Your task to perform on an android device: open app "YouTube Kids" (install if not already installed) and enter user name: "atmospheric@gmail.com" and password: "raze" Image 0: 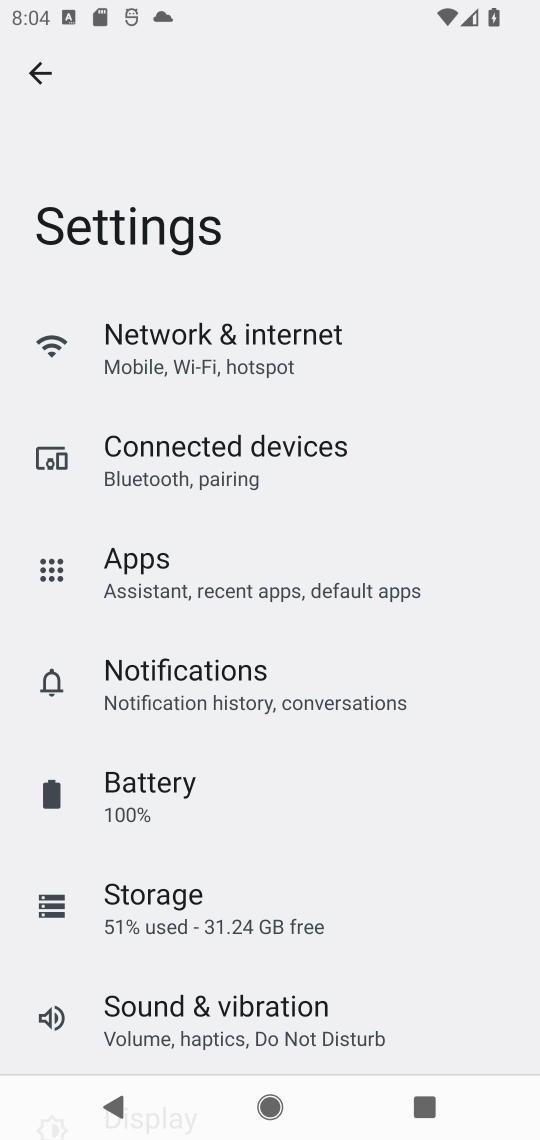
Step 0: press home button
Your task to perform on an android device: open app "YouTube Kids" (install if not already installed) and enter user name: "atmospheric@gmail.com" and password: "raze" Image 1: 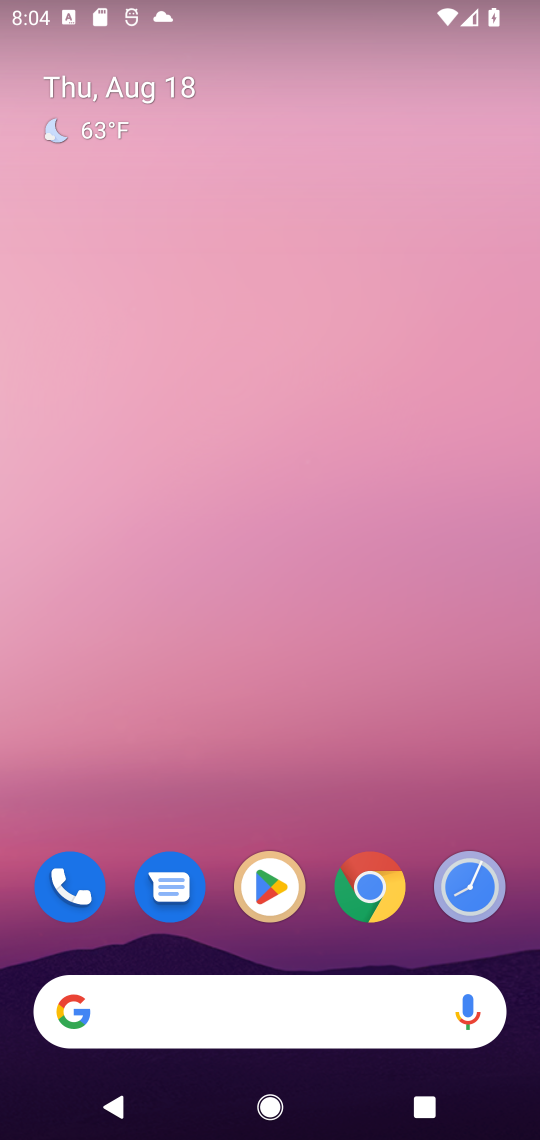
Step 1: drag from (307, 691) to (307, 19)
Your task to perform on an android device: open app "YouTube Kids" (install if not already installed) and enter user name: "atmospheric@gmail.com" and password: "raze" Image 2: 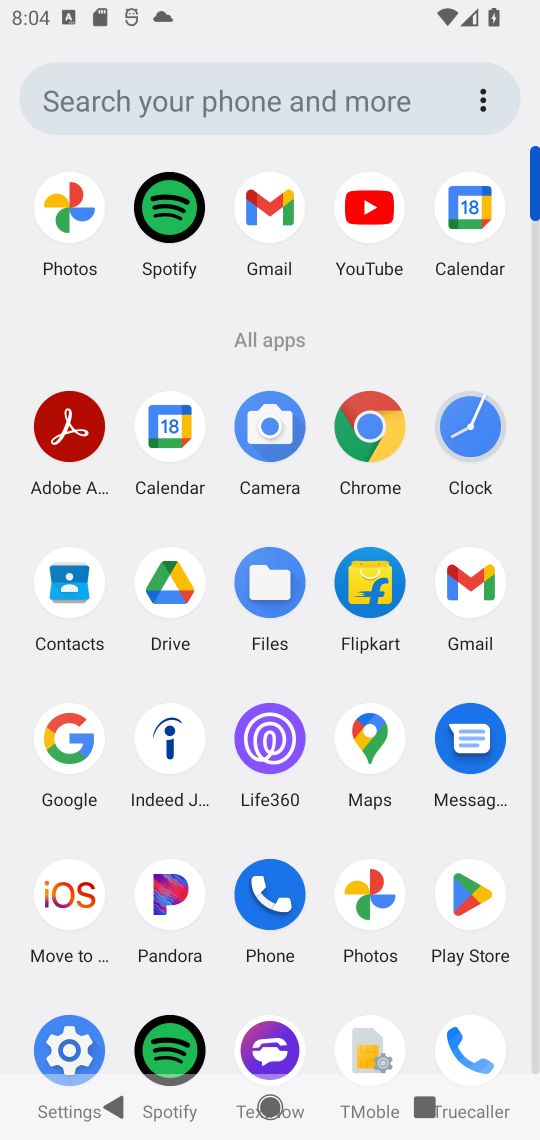
Step 2: click (471, 896)
Your task to perform on an android device: open app "YouTube Kids" (install if not already installed) and enter user name: "atmospheric@gmail.com" and password: "raze" Image 3: 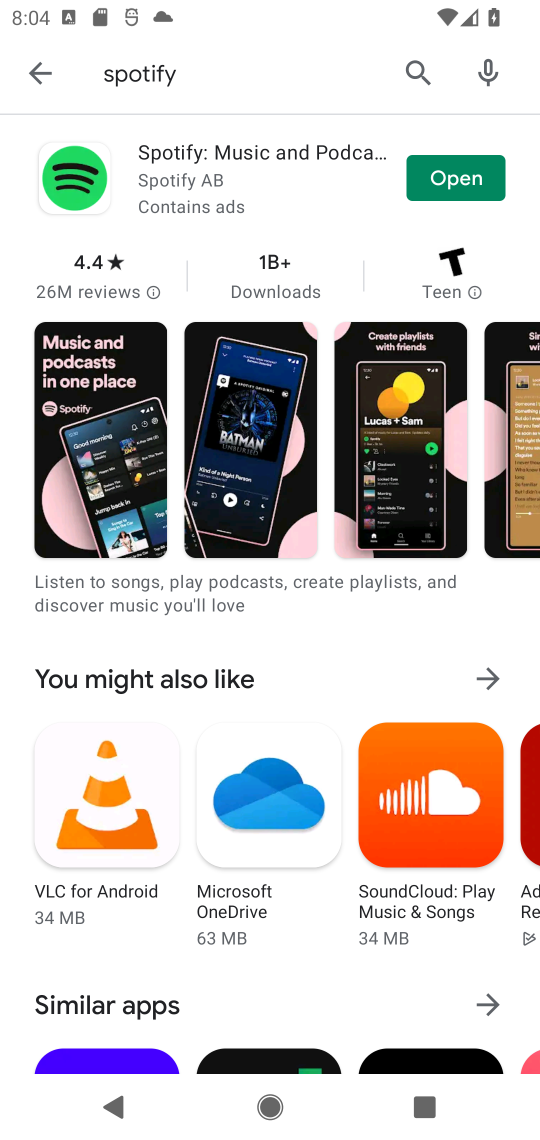
Step 3: click (413, 66)
Your task to perform on an android device: open app "YouTube Kids" (install if not already installed) and enter user name: "atmospheric@gmail.com" and password: "raze" Image 4: 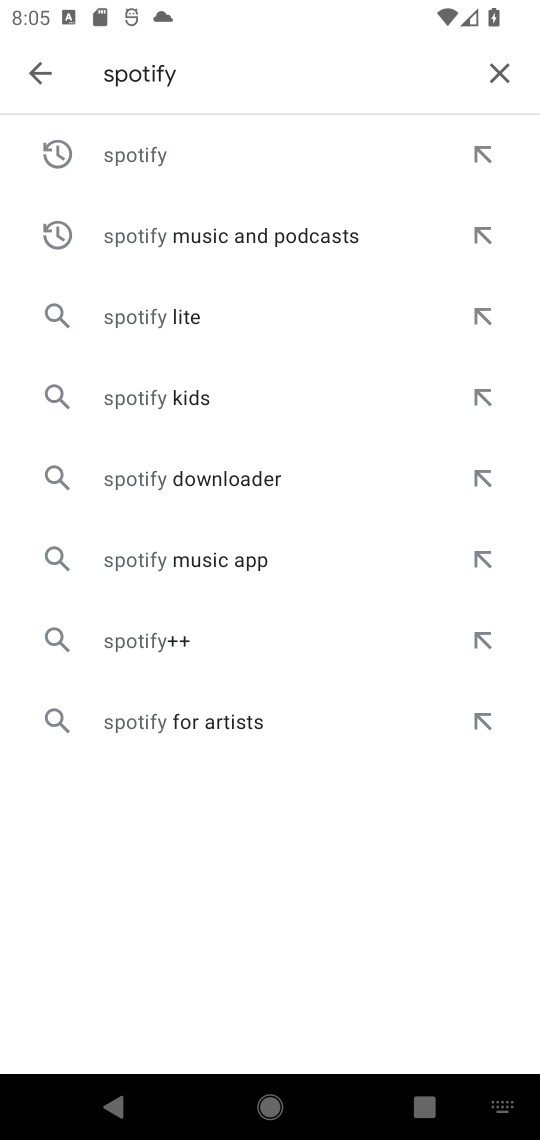
Step 4: click (494, 64)
Your task to perform on an android device: open app "YouTube Kids" (install if not already installed) and enter user name: "atmospheric@gmail.com" and password: "raze" Image 5: 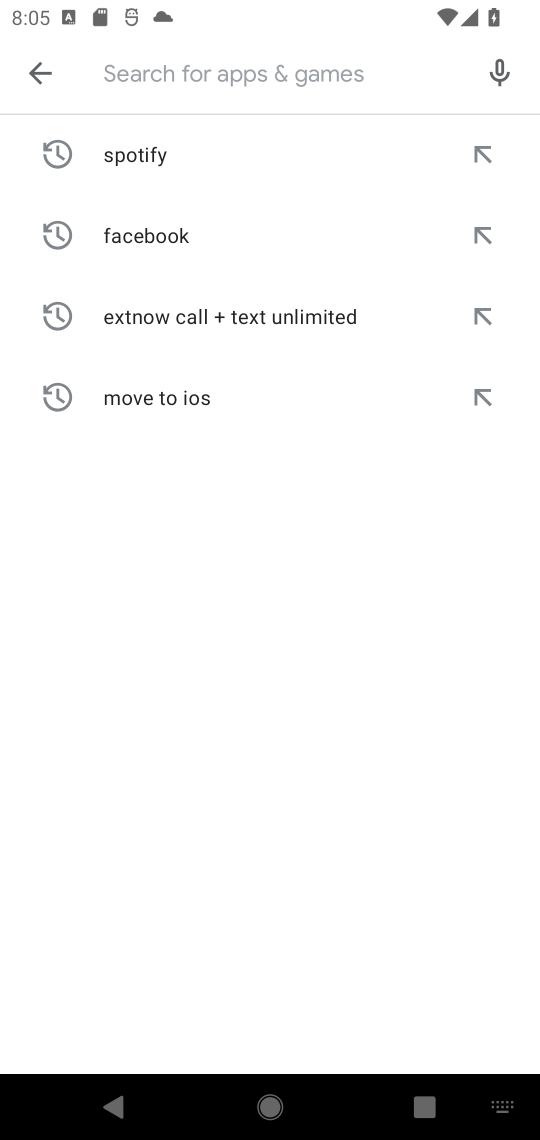
Step 5: type "youTube Kids"
Your task to perform on an android device: open app "YouTube Kids" (install if not already installed) and enter user name: "atmospheric@gmail.com" and password: "raze" Image 6: 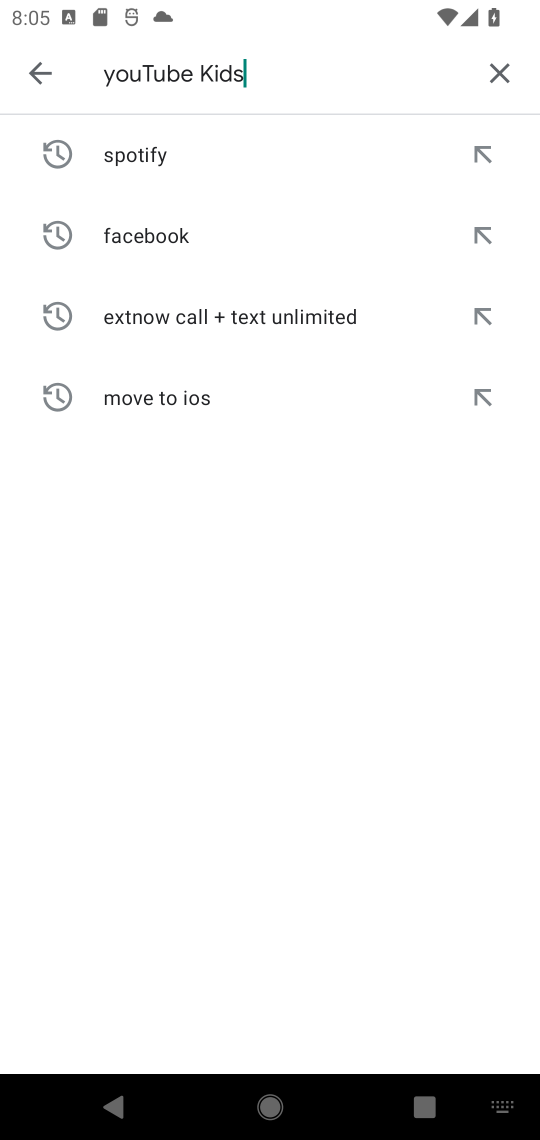
Step 6: type ""
Your task to perform on an android device: open app "YouTube Kids" (install if not already installed) and enter user name: "atmospheric@gmail.com" and password: "raze" Image 7: 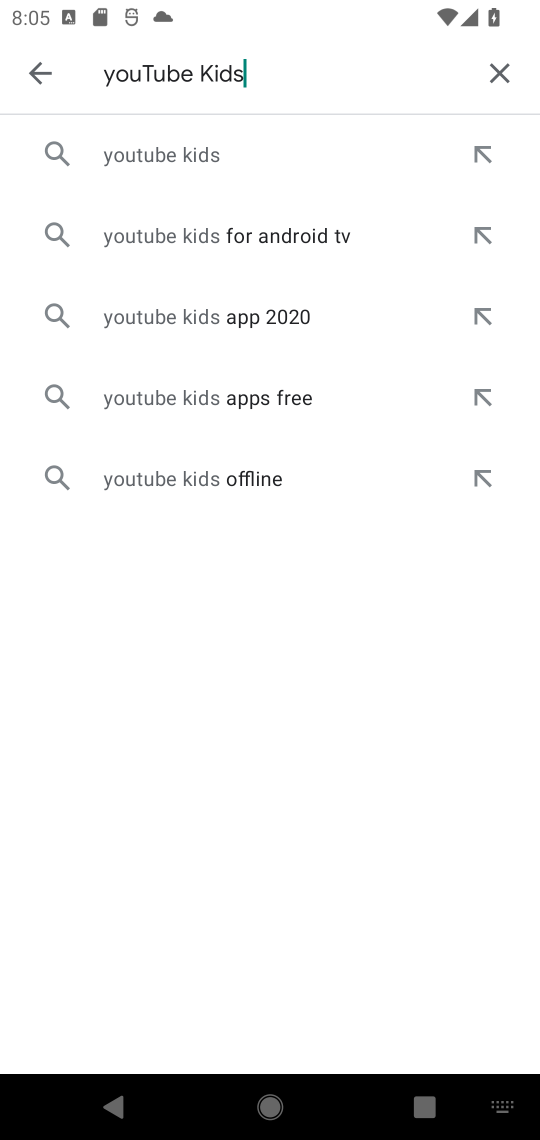
Step 7: click (194, 152)
Your task to perform on an android device: open app "YouTube Kids" (install if not already installed) and enter user name: "atmospheric@gmail.com" and password: "raze" Image 8: 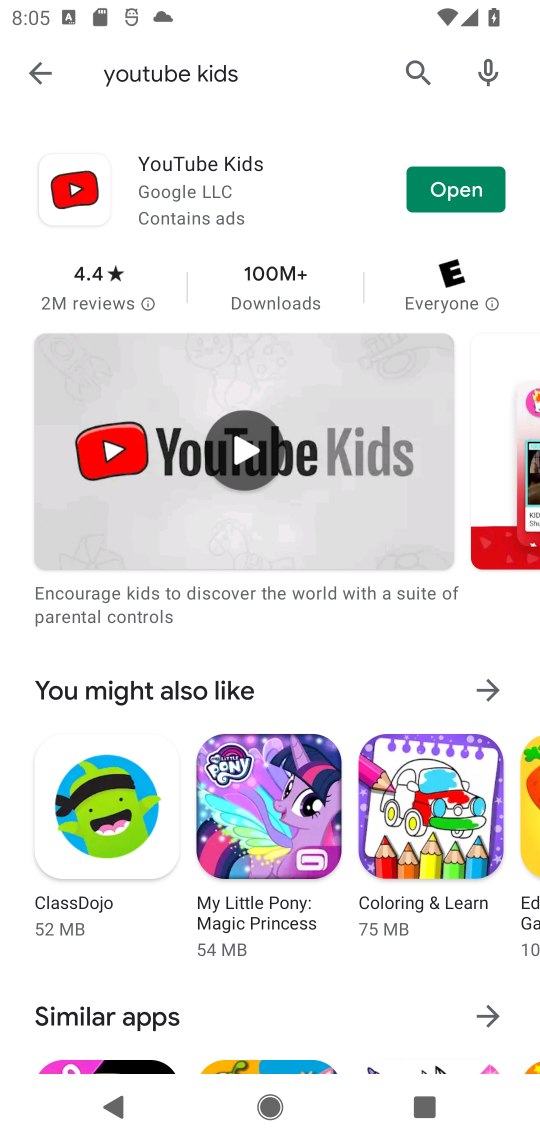
Step 8: click (460, 186)
Your task to perform on an android device: open app "YouTube Kids" (install if not already installed) and enter user name: "atmospheric@gmail.com" and password: "raze" Image 9: 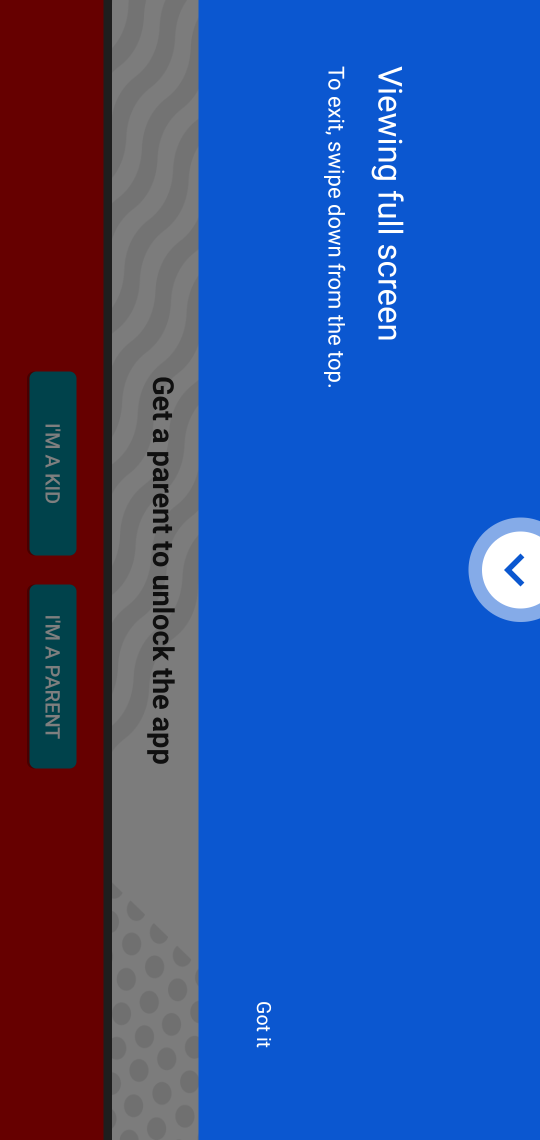
Step 9: click (52, 518)
Your task to perform on an android device: open app "YouTube Kids" (install if not already installed) and enter user name: "atmospheric@gmail.com" and password: "raze" Image 10: 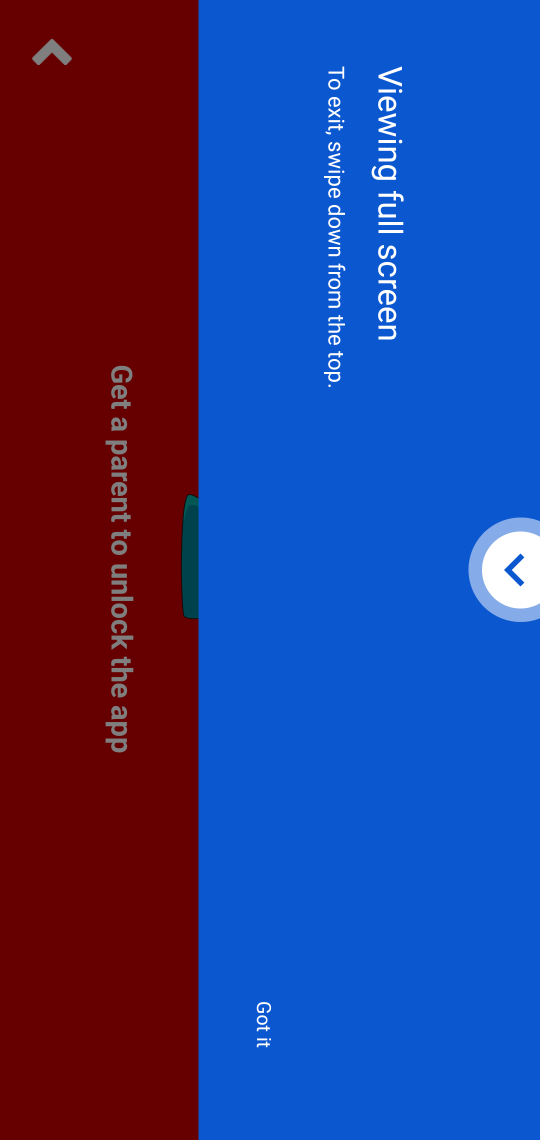
Step 10: click (193, 584)
Your task to perform on an android device: open app "YouTube Kids" (install if not already installed) and enter user name: "atmospheric@gmail.com" and password: "raze" Image 11: 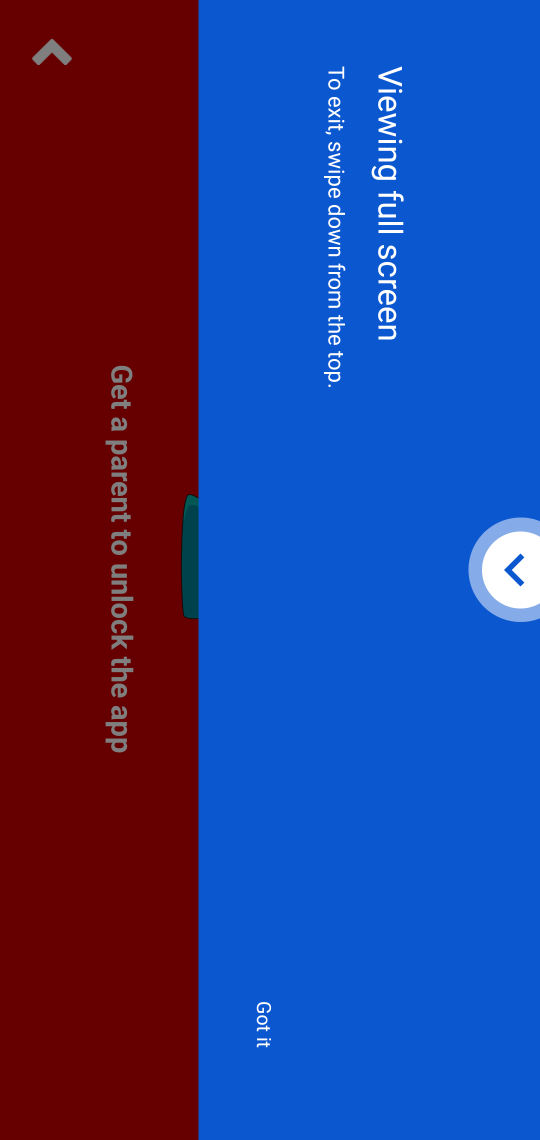
Step 11: click (195, 552)
Your task to perform on an android device: open app "YouTube Kids" (install if not already installed) and enter user name: "atmospheric@gmail.com" and password: "raze" Image 12: 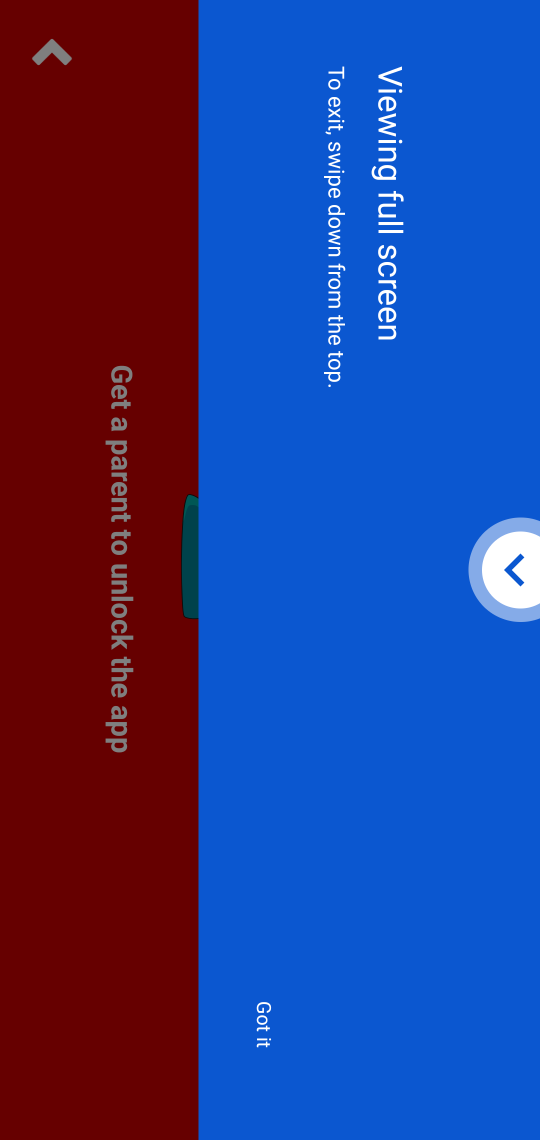
Step 12: click (268, 1015)
Your task to perform on an android device: open app "YouTube Kids" (install if not already installed) and enter user name: "atmospheric@gmail.com" and password: "raze" Image 13: 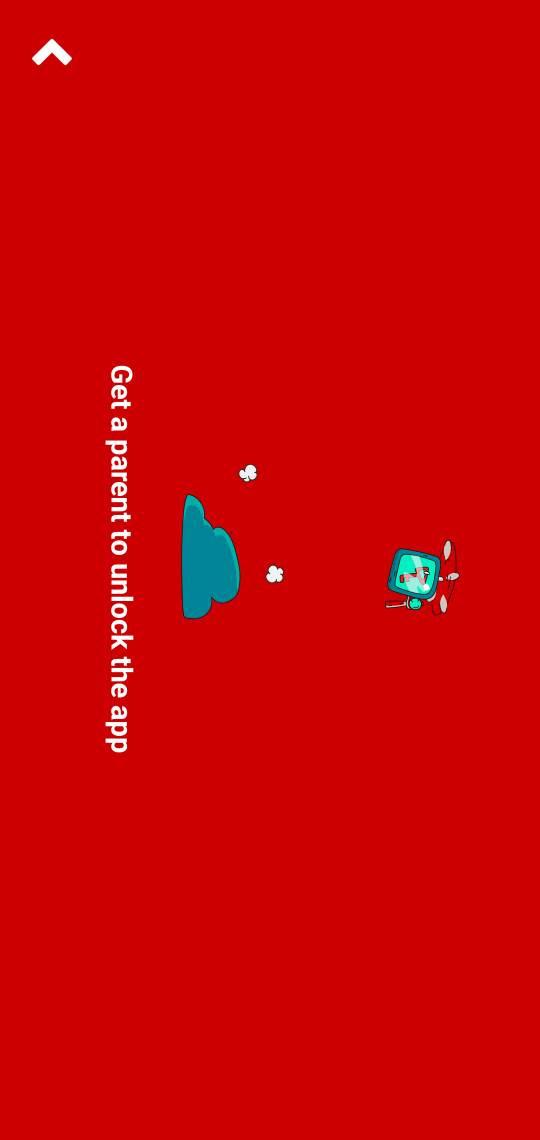
Step 13: task complete